Your task to perform on an android device: Go to CNN.com Image 0: 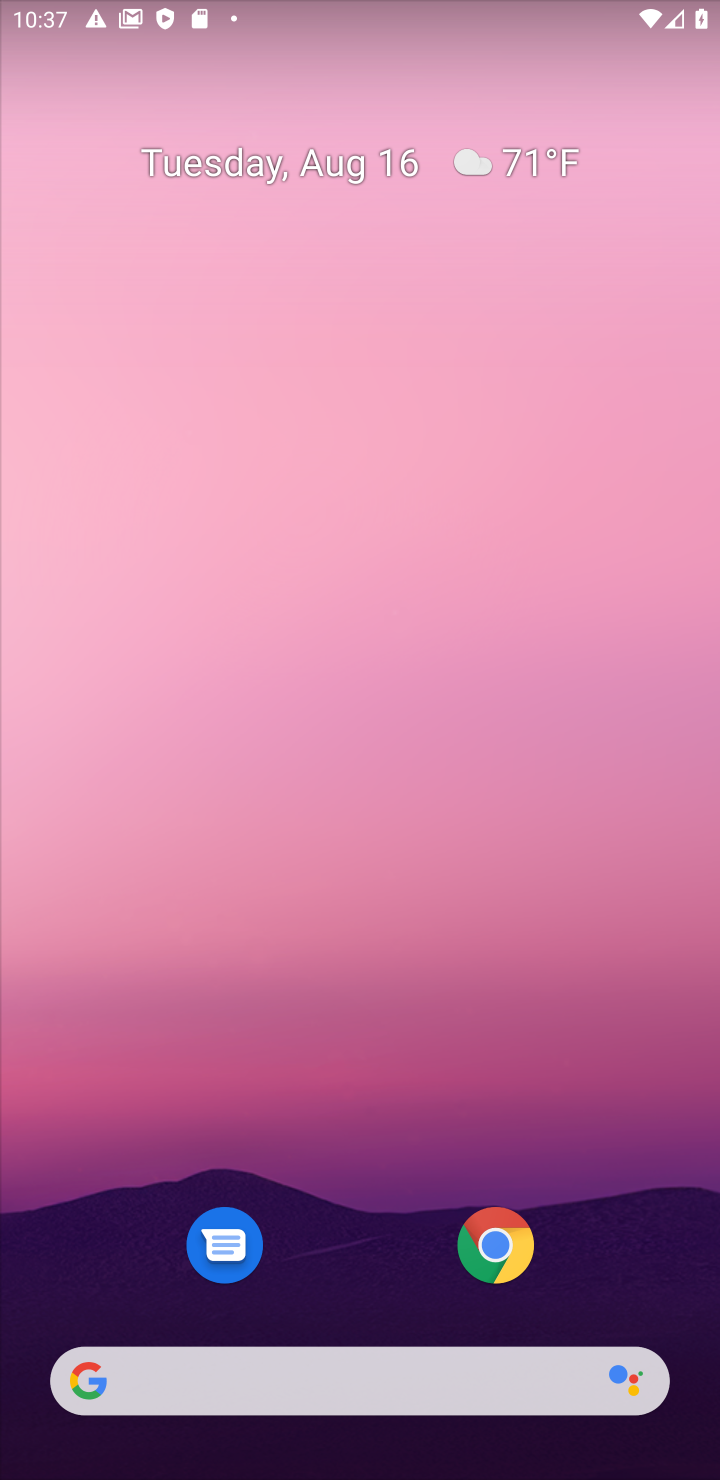
Step 0: click (517, 1258)
Your task to perform on an android device: Go to CNN.com Image 1: 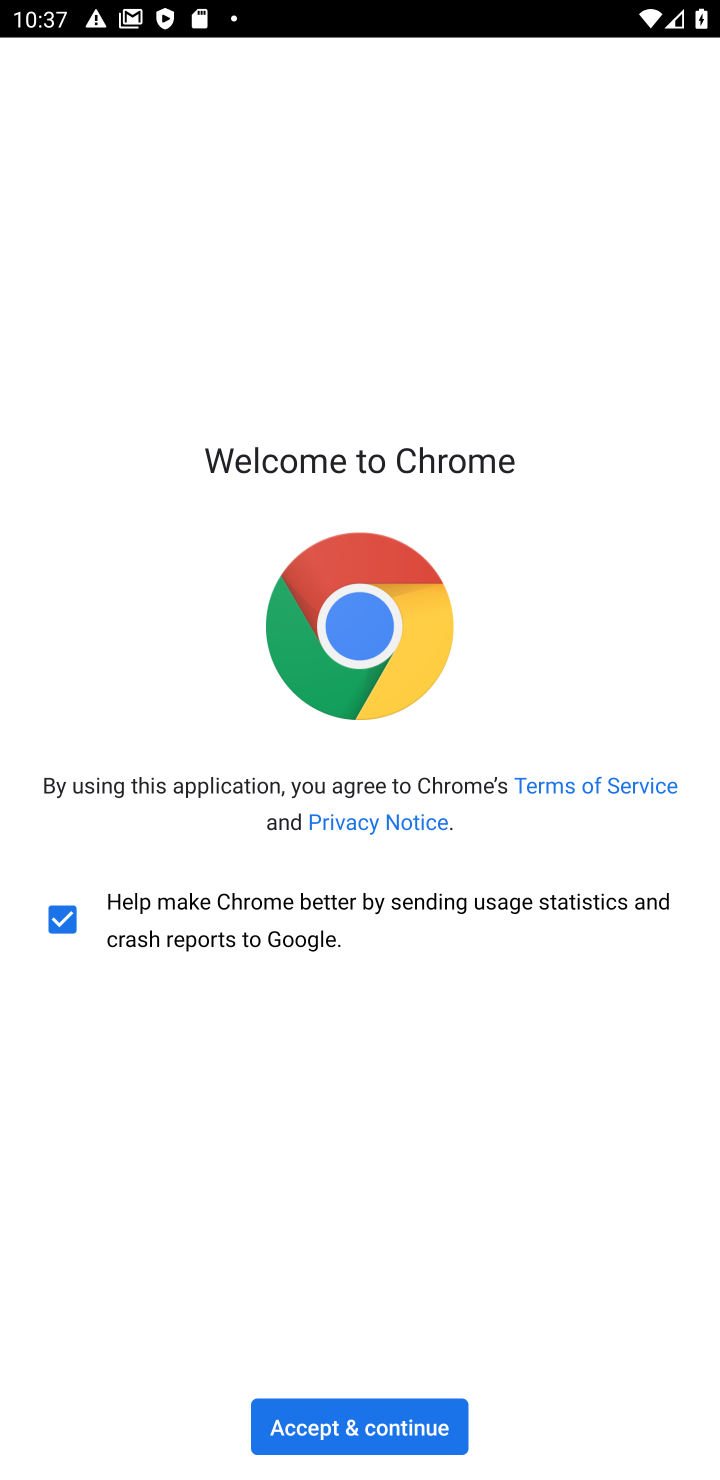
Step 1: click (373, 1416)
Your task to perform on an android device: Go to CNN.com Image 2: 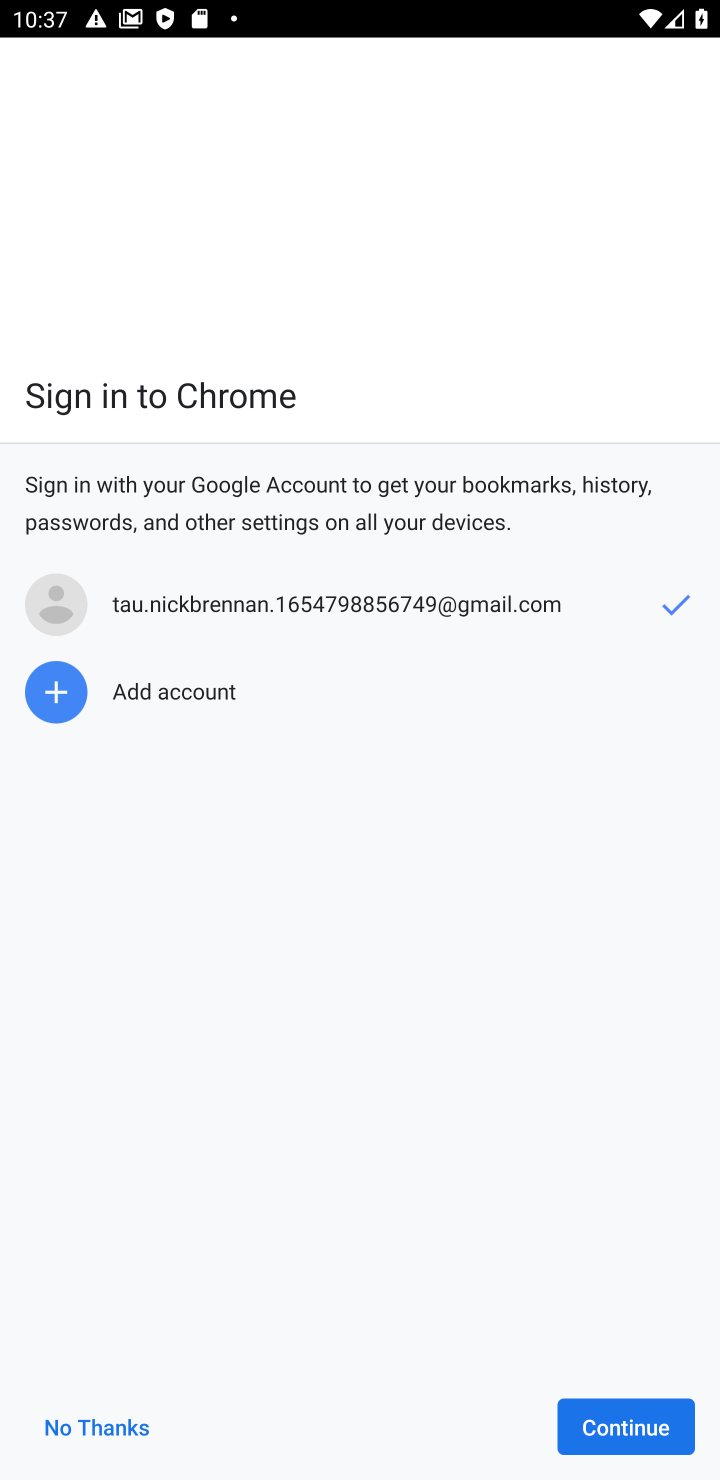
Step 2: click (596, 1415)
Your task to perform on an android device: Go to CNN.com Image 3: 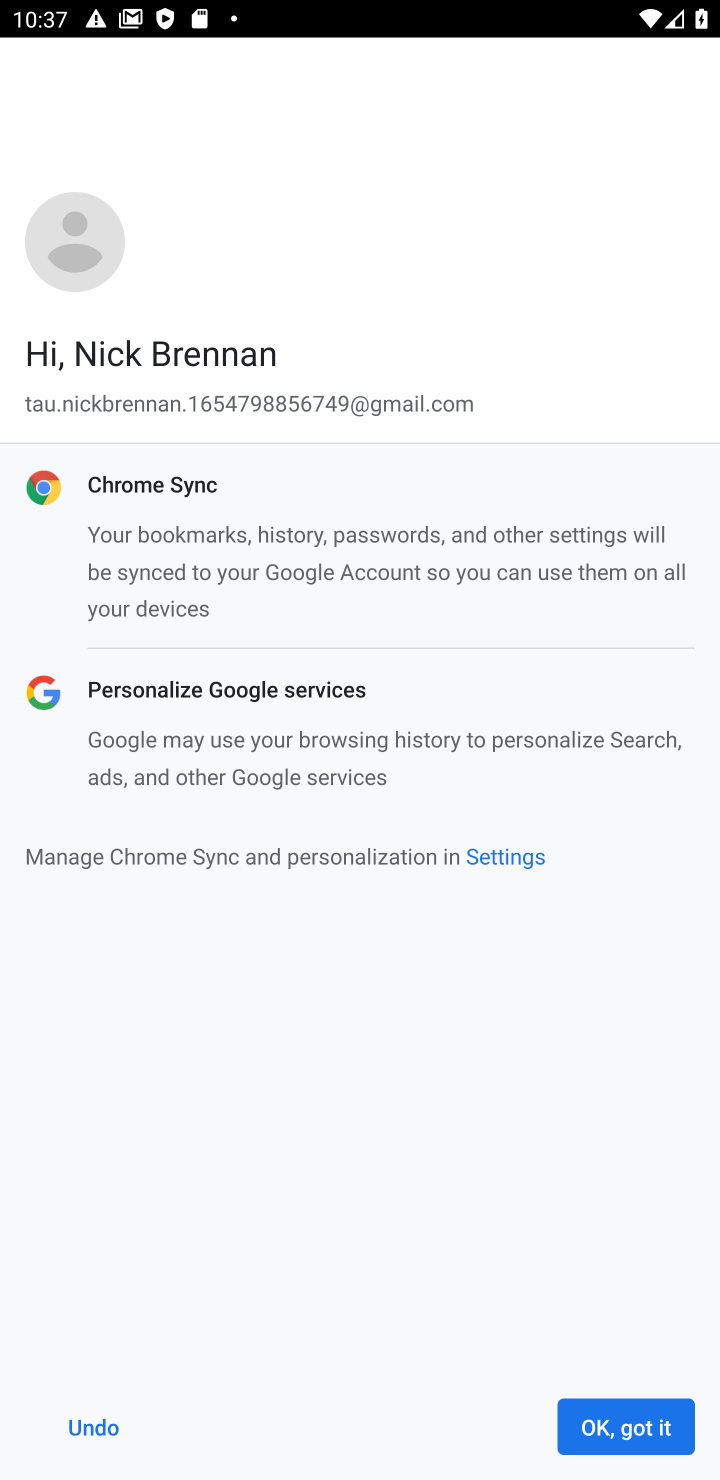
Step 3: click (596, 1415)
Your task to perform on an android device: Go to CNN.com Image 4: 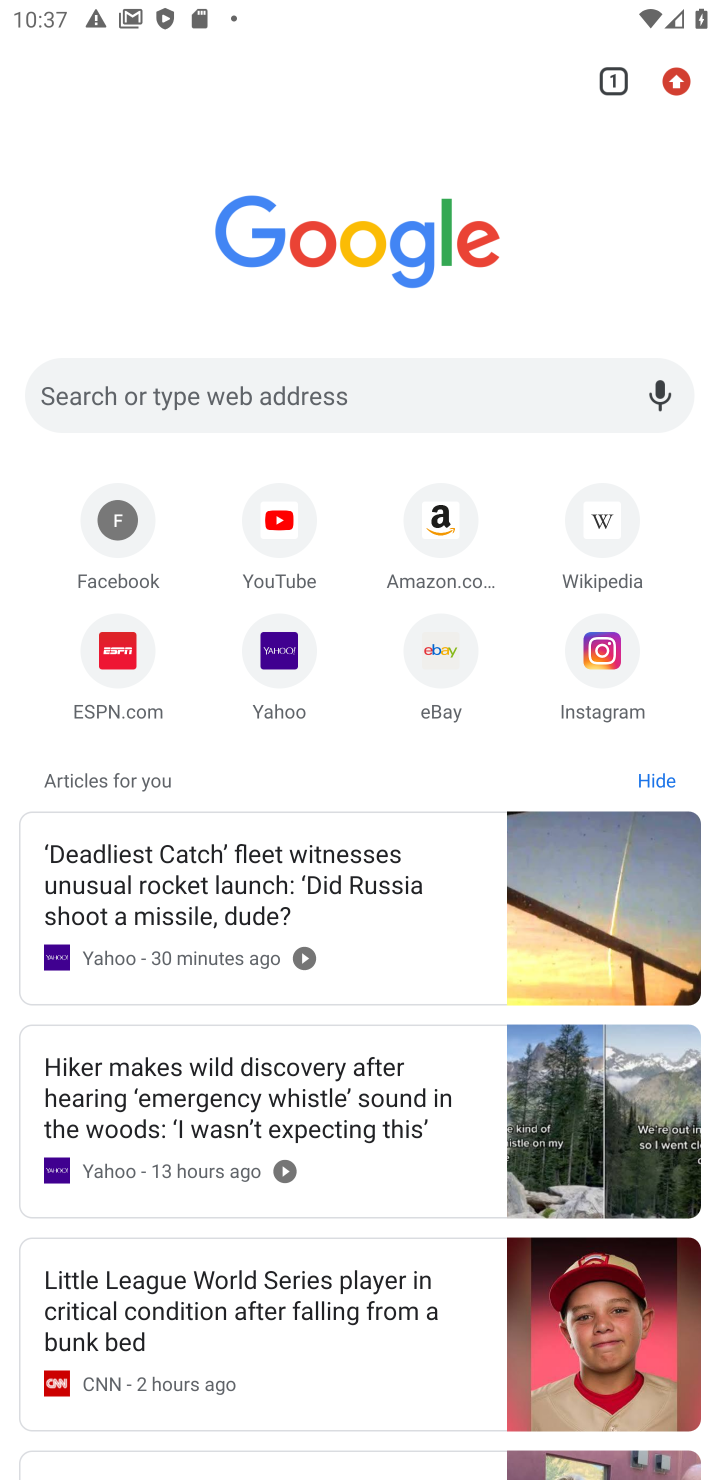
Step 4: click (483, 381)
Your task to perform on an android device: Go to CNN.com Image 5: 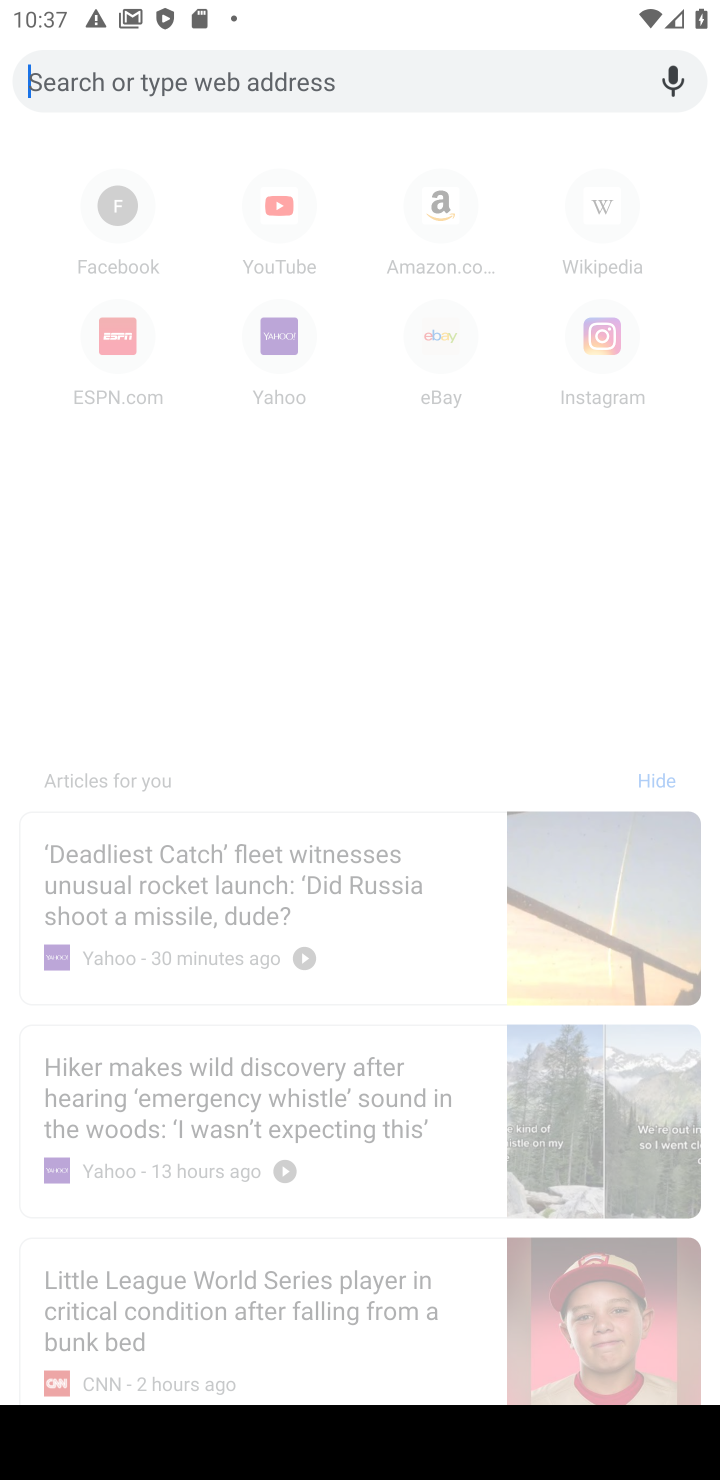
Step 5: type "cnn.com"
Your task to perform on an android device: Go to CNN.com Image 6: 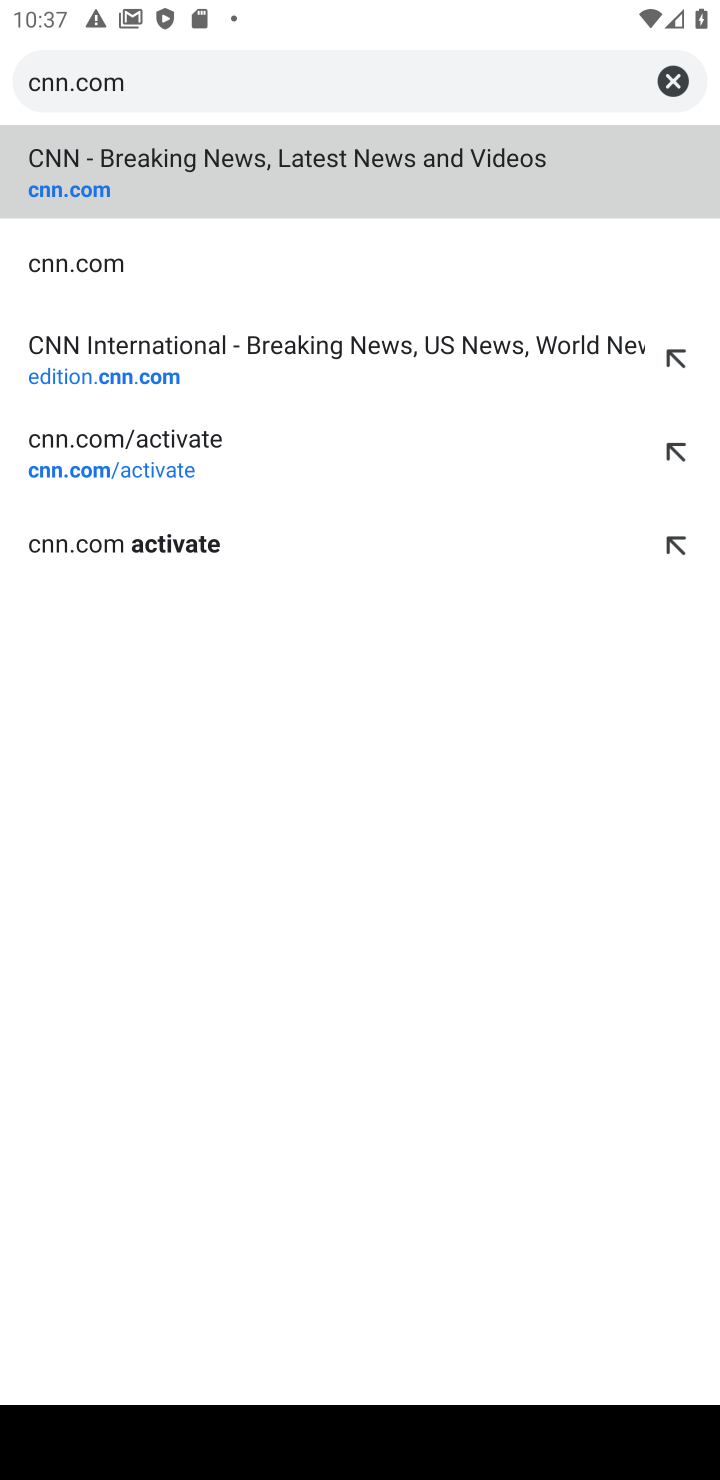
Step 6: click (346, 160)
Your task to perform on an android device: Go to CNN.com Image 7: 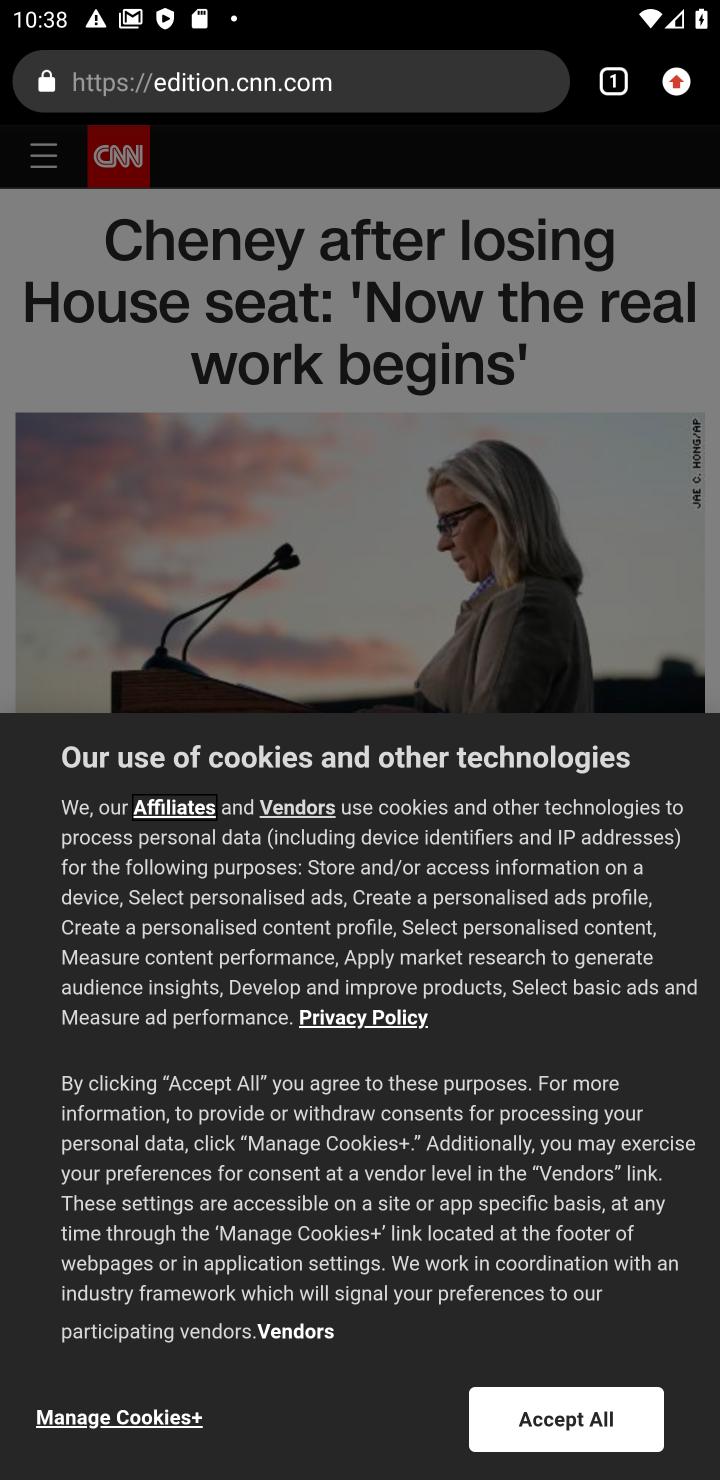
Step 7: click (623, 1415)
Your task to perform on an android device: Go to CNN.com Image 8: 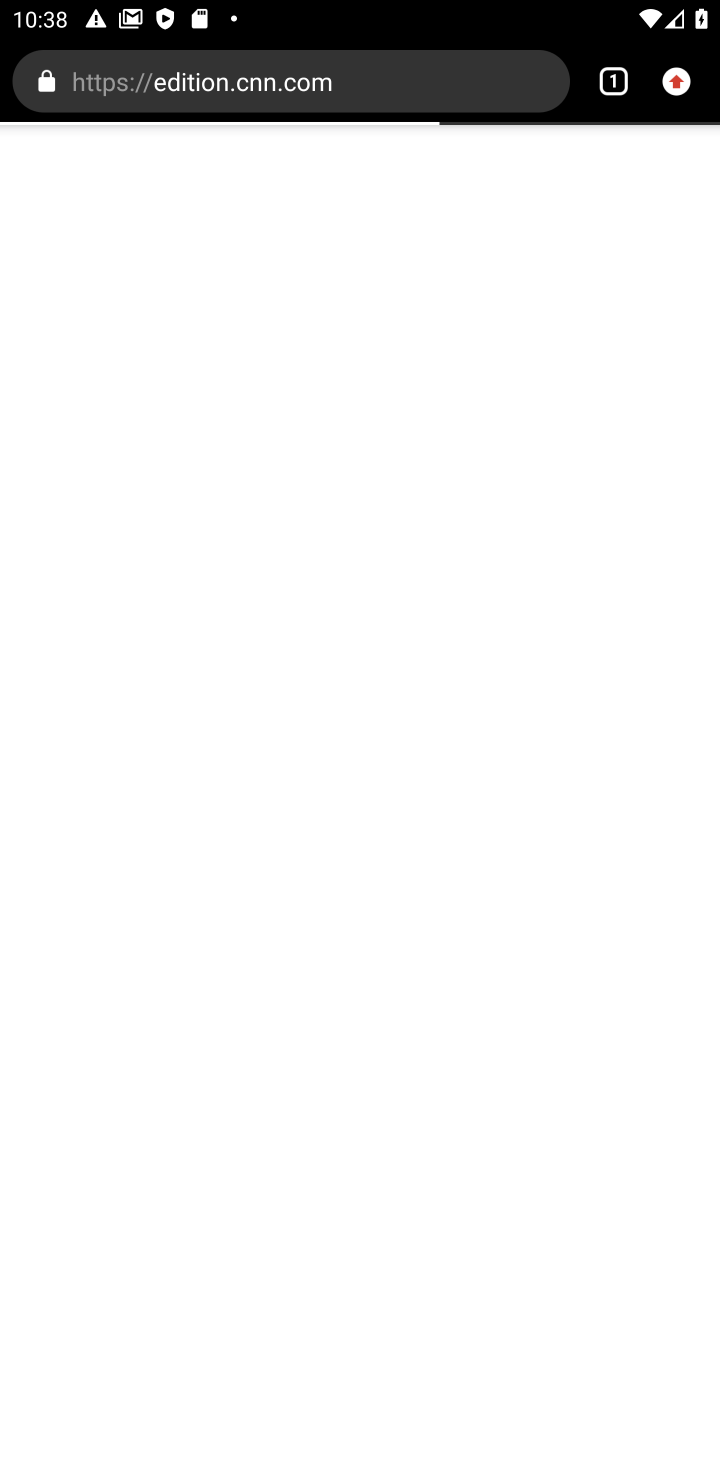
Step 8: task complete